Your task to perform on an android device: delete browsing data in the chrome app Image 0: 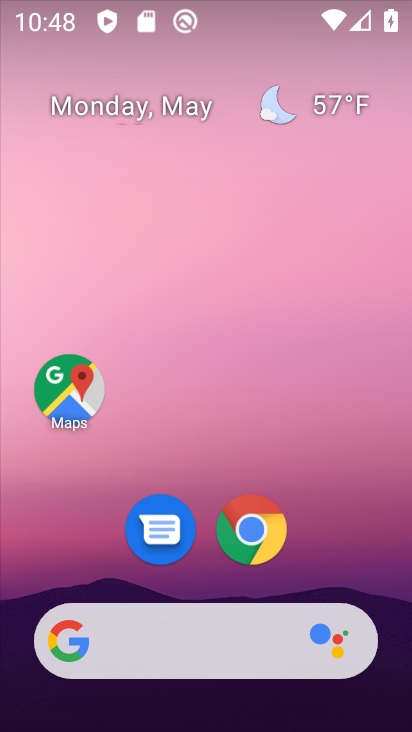
Step 0: click (262, 530)
Your task to perform on an android device: delete browsing data in the chrome app Image 1: 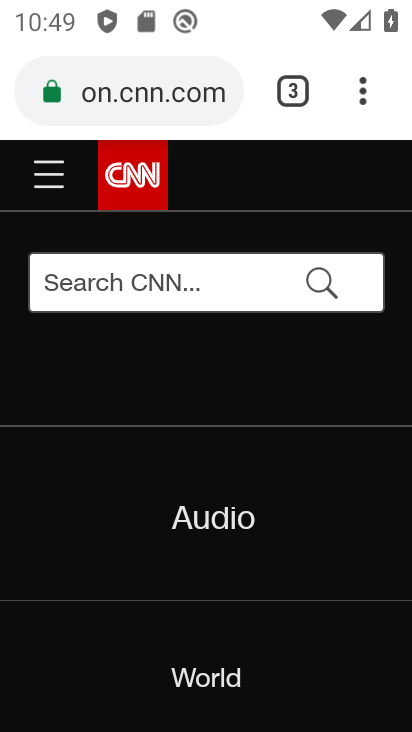
Step 1: click (363, 99)
Your task to perform on an android device: delete browsing data in the chrome app Image 2: 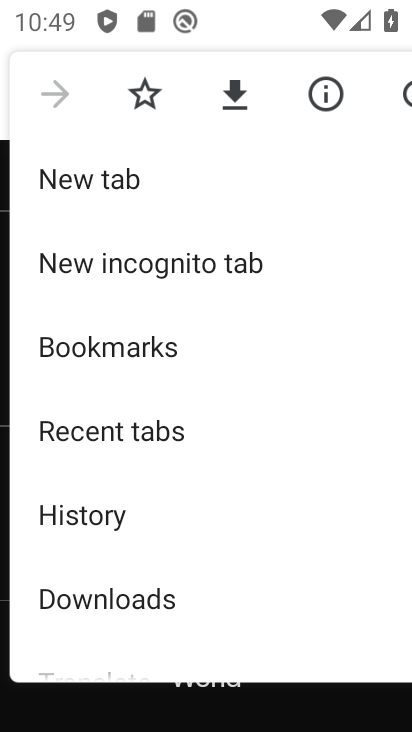
Step 2: click (82, 509)
Your task to perform on an android device: delete browsing data in the chrome app Image 3: 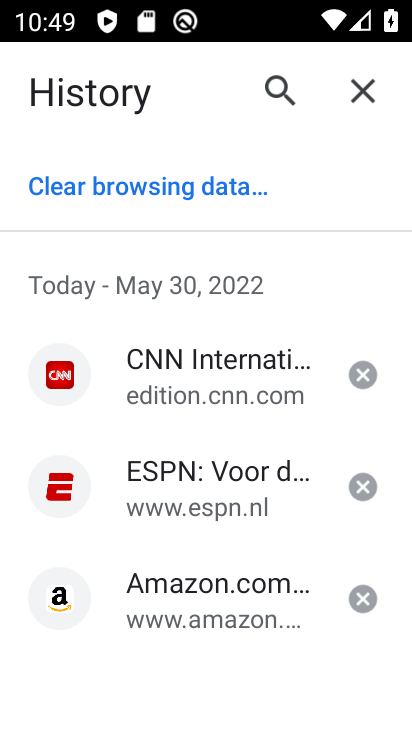
Step 3: click (145, 185)
Your task to perform on an android device: delete browsing data in the chrome app Image 4: 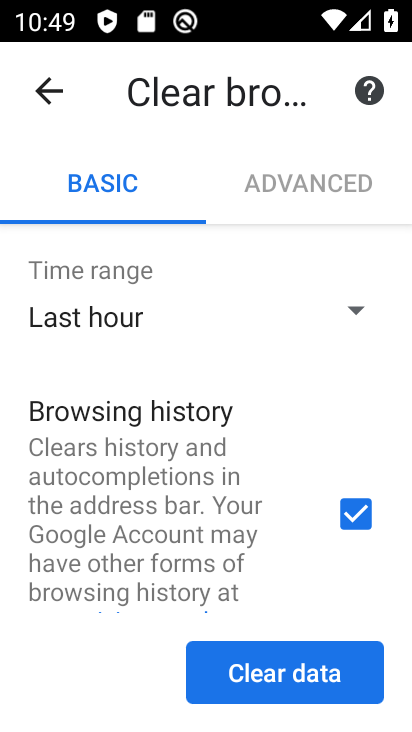
Step 4: drag from (292, 604) to (283, 265)
Your task to perform on an android device: delete browsing data in the chrome app Image 5: 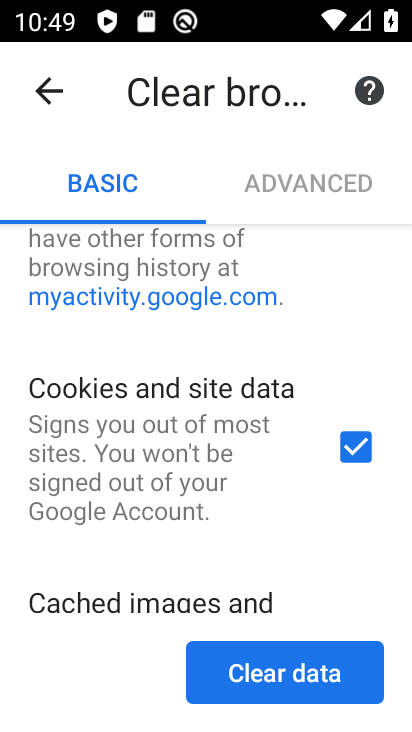
Step 5: drag from (272, 584) to (275, 476)
Your task to perform on an android device: delete browsing data in the chrome app Image 6: 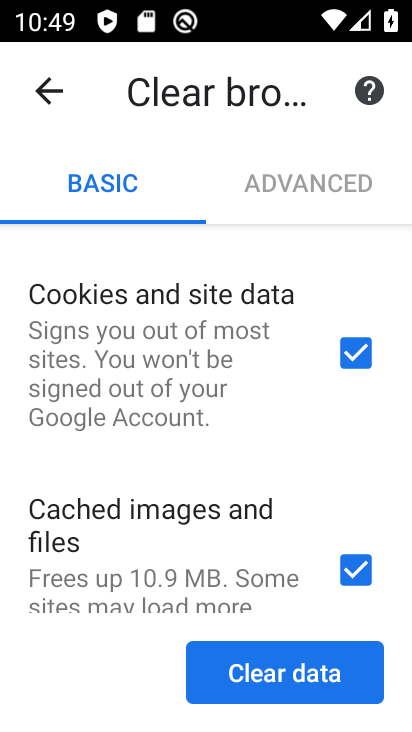
Step 6: click (364, 349)
Your task to perform on an android device: delete browsing data in the chrome app Image 7: 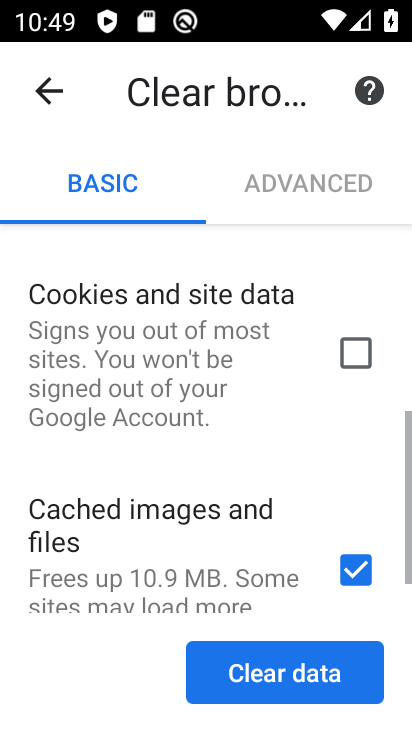
Step 7: click (361, 571)
Your task to perform on an android device: delete browsing data in the chrome app Image 8: 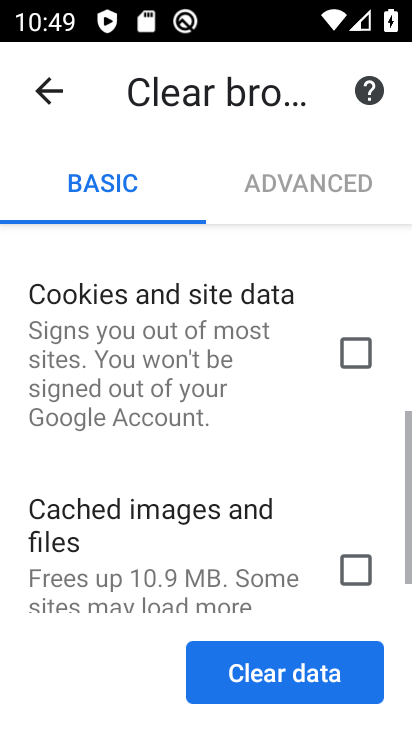
Step 8: drag from (303, 486) to (307, 355)
Your task to perform on an android device: delete browsing data in the chrome app Image 9: 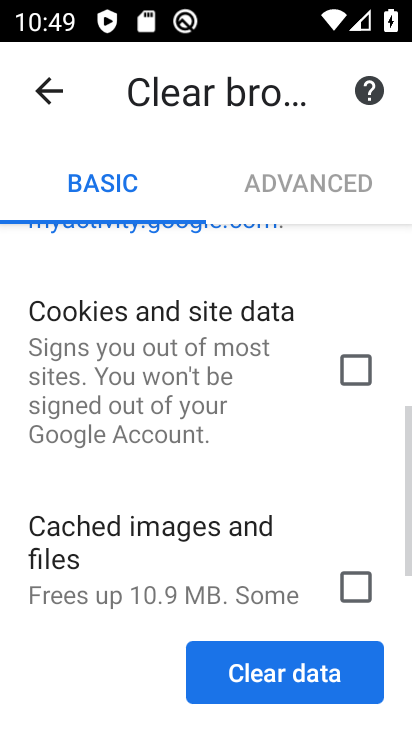
Step 9: click (317, 631)
Your task to perform on an android device: delete browsing data in the chrome app Image 10: 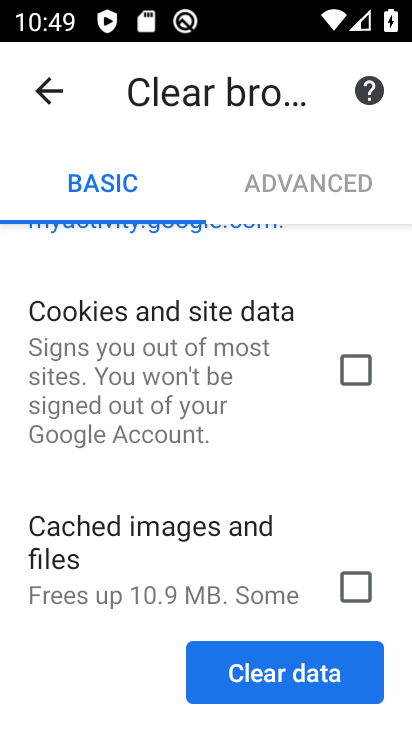
Step 10: drag from (304, 265) to (304, 312)
Your task to perform on an android device: delete browsing data in the chrome app Image 11: 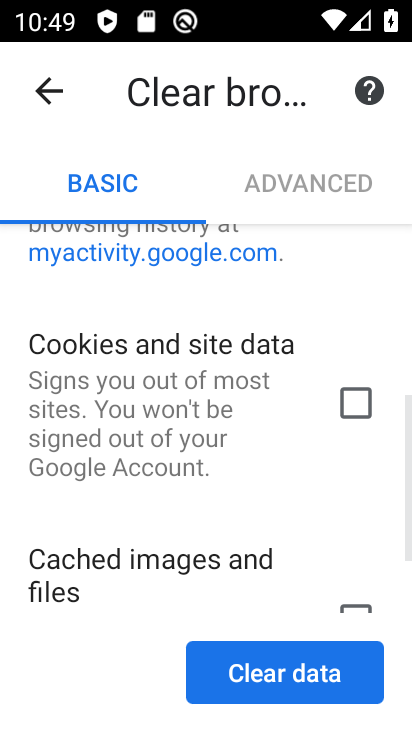
Step 11: click (300, 500)
Your task to perform on an android device: delete browsing data in the chrome app Image 12: 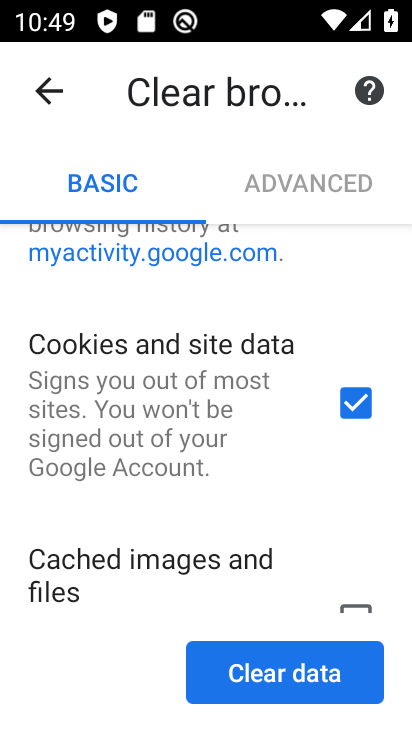
Step 12: click (342, 406)
Your task to perform on an android device: delete browsing data in the chrome app Image 13: 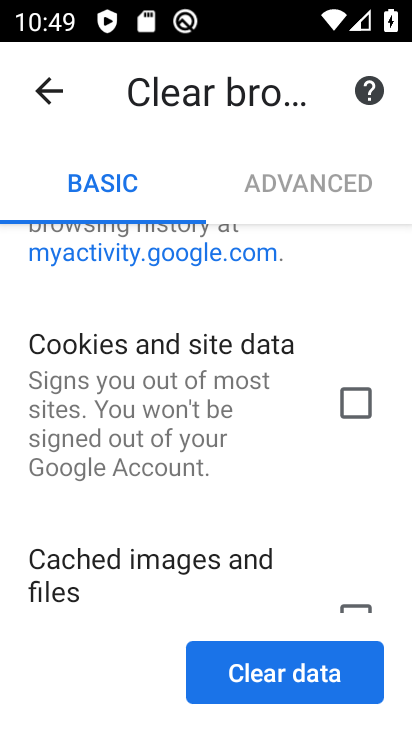
Step 13: click (291, 680)
Your task to perform on an android device: delete browsing data in the chrome app Image 14: 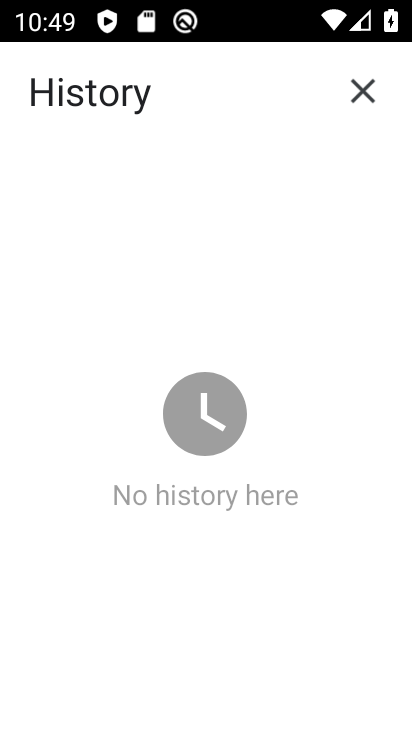
Step 14: task complete